Your task to perform on an android device: open wifi settings Image 0: 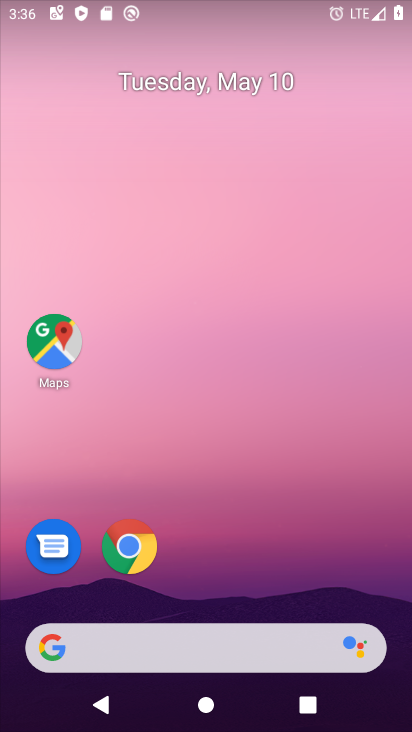
Step 0: drag from (216, 598) to (282, 0)
Your task to perform on an android device: open wifi settings Image 1: 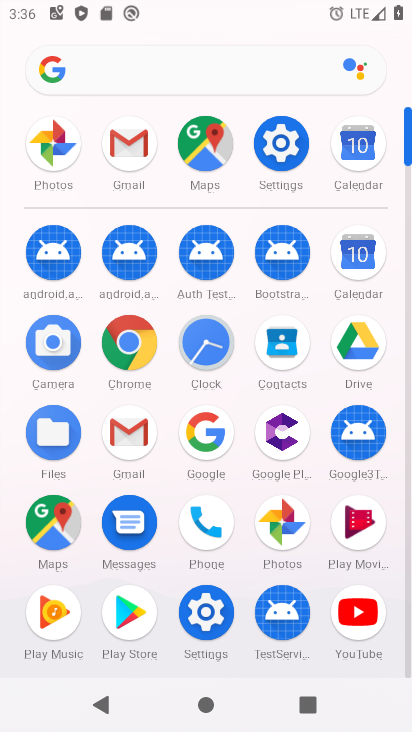
Step 1: click (284, 140)
Your task to perform on an android device: open wifi settings Image 2: 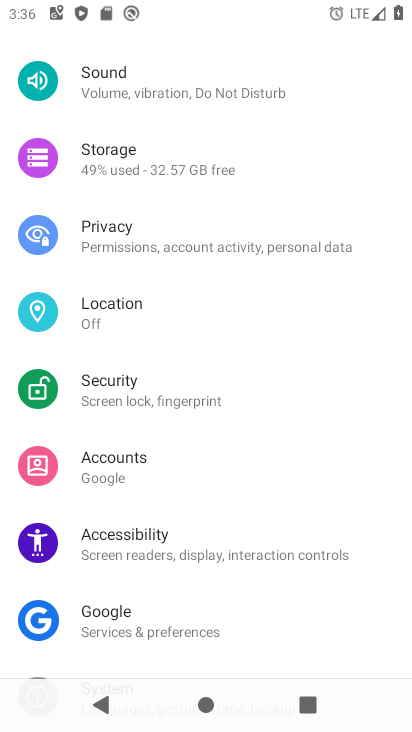
Step 2: drag from (213, 174) to (239, 521)
Your task to perform on an android device: open wifi settings Image 3: 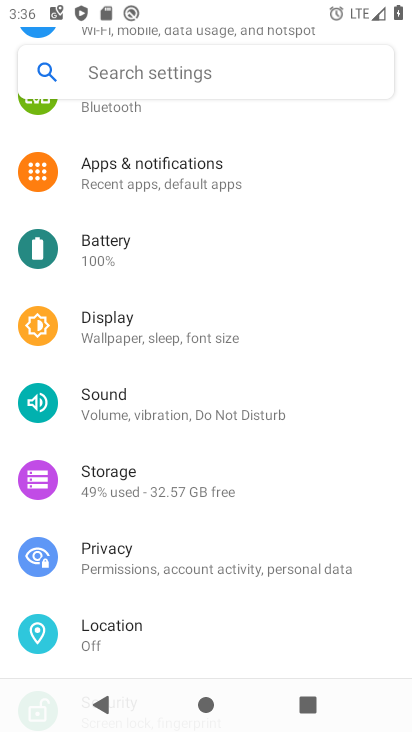
Step 3: drag from (185, 233) to (240, 731)
Your task to perform on an android device: open wifi settings Image 4: 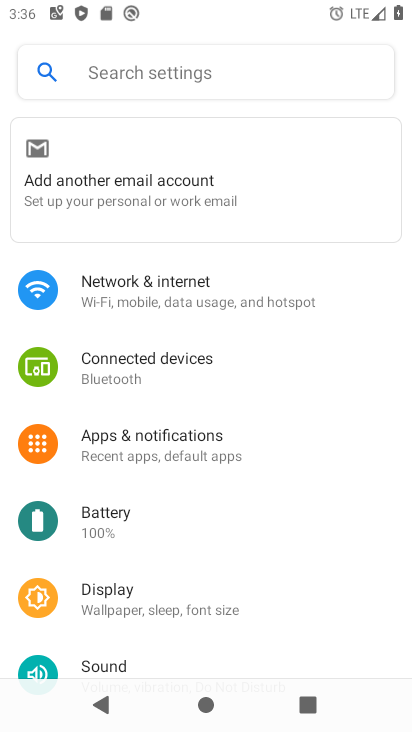
Step 4: click (196, 308)
Your task to perform on an android device: open wifi settings Image 5: 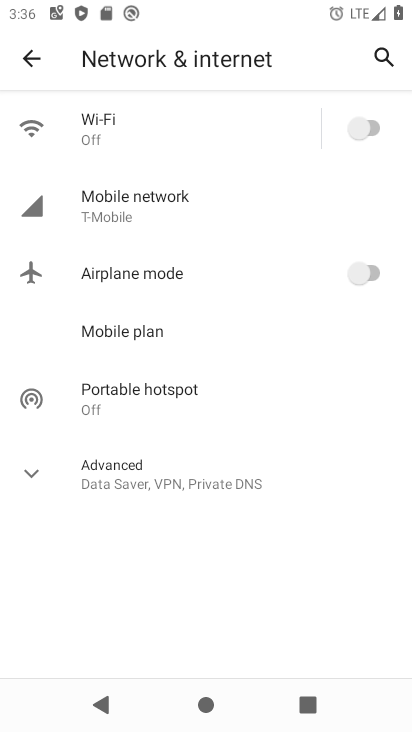
Step 5: click (168, 133)
Your task to perform on an android device: open wifi settings Image 6: 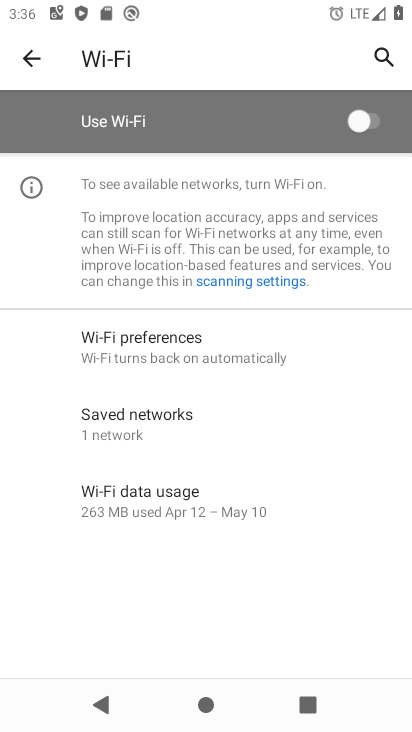
Step 6: task complete